Your task to perform on an android device: open device folders in google photos Image 0: 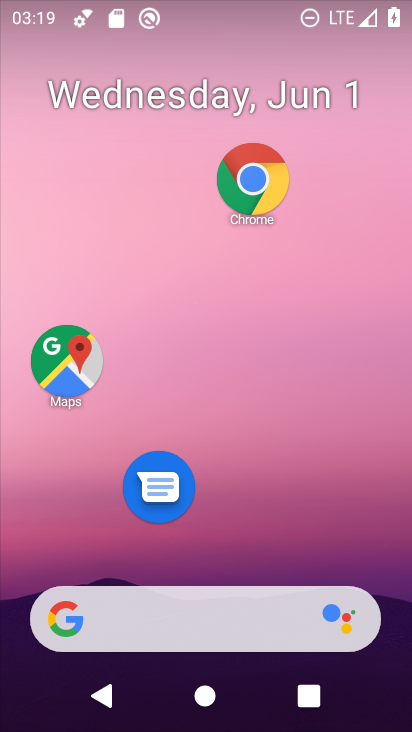
Step 0: drag from (239, 536) to (233, 244)
Your task to perform on an android device: open device folders in google photos Image 1: 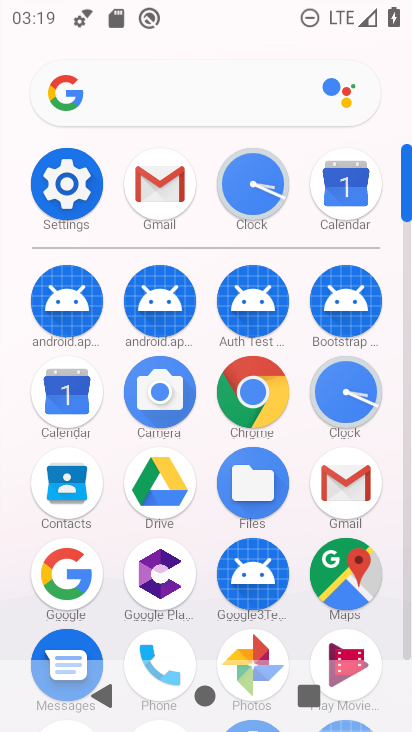
Step 1: click (244, 640)
Your task to perform on an android device: open device folders in google photos Image 2: 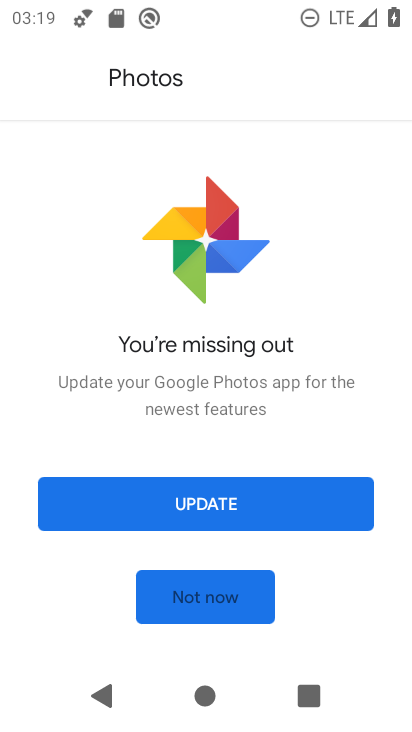
Step 2: click (221, 585)
Your task to perform on an android device: open device folders in google photos Image 3: 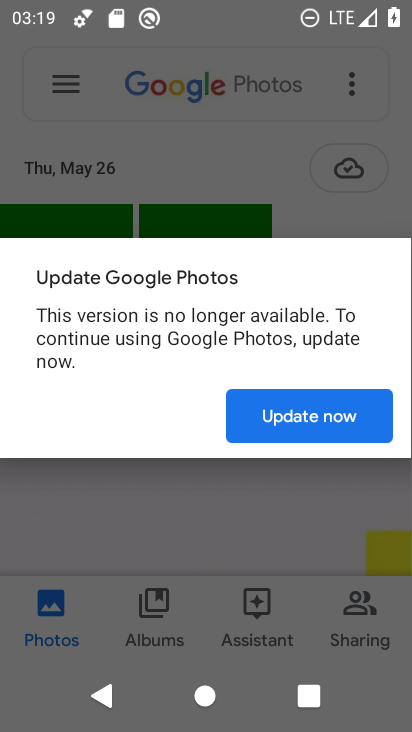
Step 3: press back button
Your task to perform on an android device: open device folders in google photos Image 4: 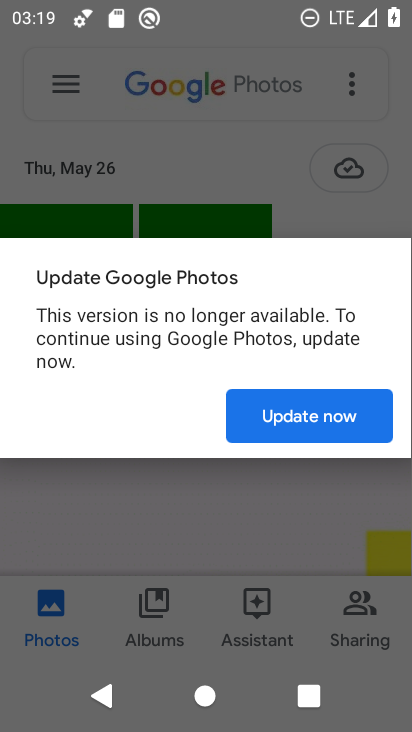
Step 4: click (324, 390)
Your task to perform on an android device: open device folders in google photos Image 5: 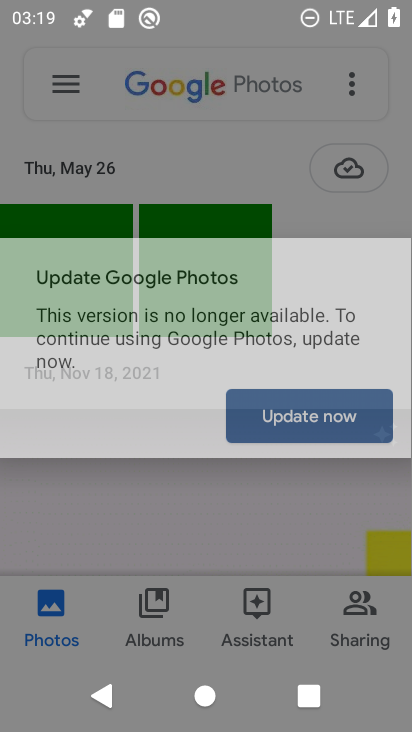
Step 5: click (323, 402)
Your task to perform on an android device: open device folders in google photos Image 6: 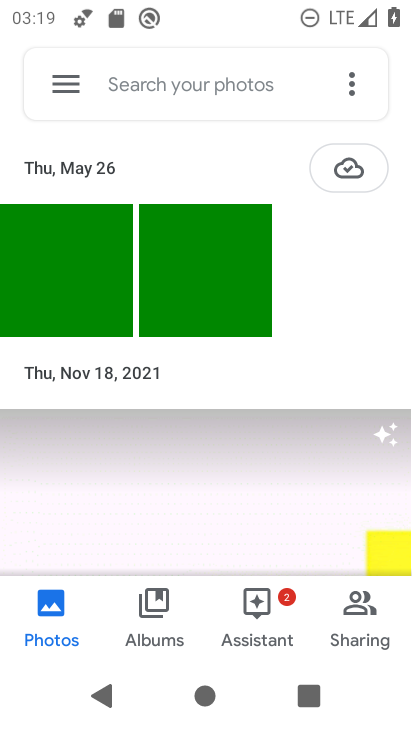
Step 6: task complete